Your task to perform on an android device: Show the shopping cart on walmart. Add "logitech g pro" to the cart on walmart Image 0: 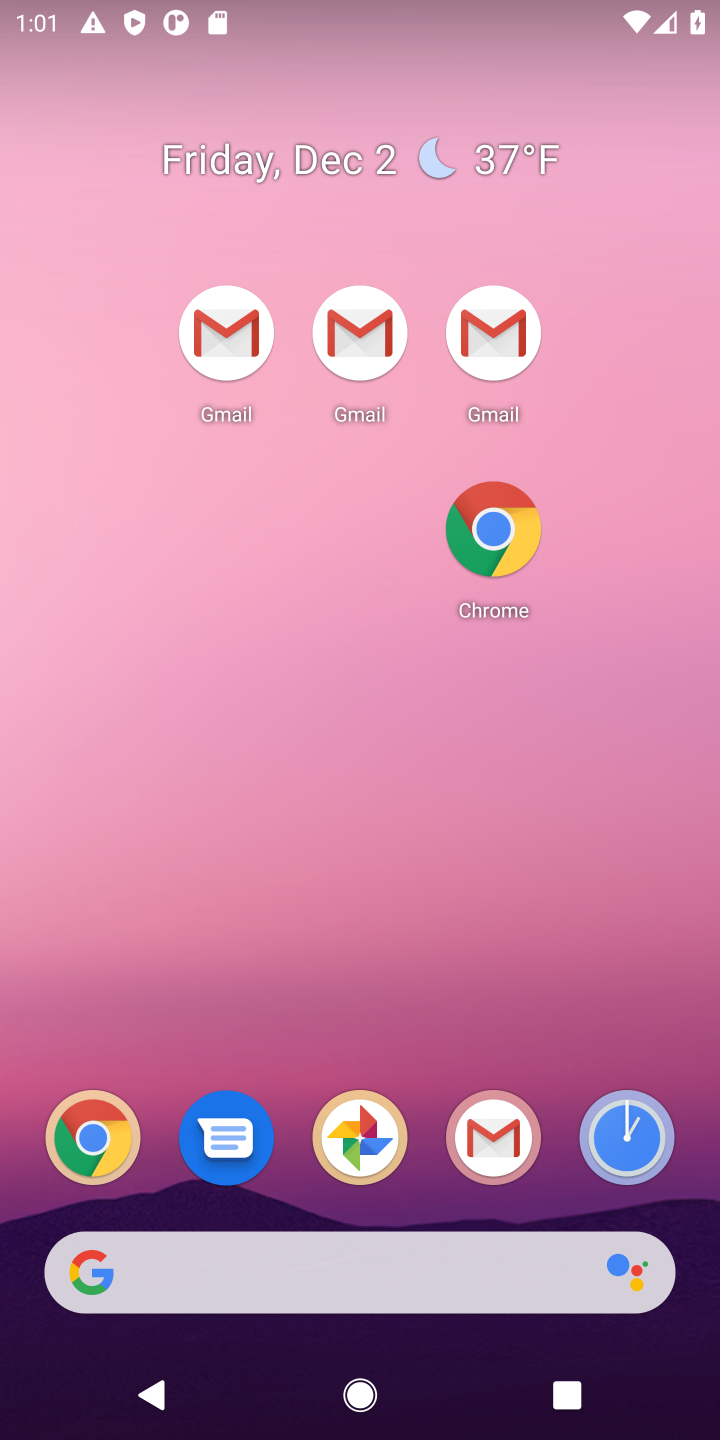
Step 0: drag from (437, 1210) to (418, 567)
Your task to perform on an android device: Show the shopping cart on walmart. Add "logitech g pro" to the cart on walmart Image 1: 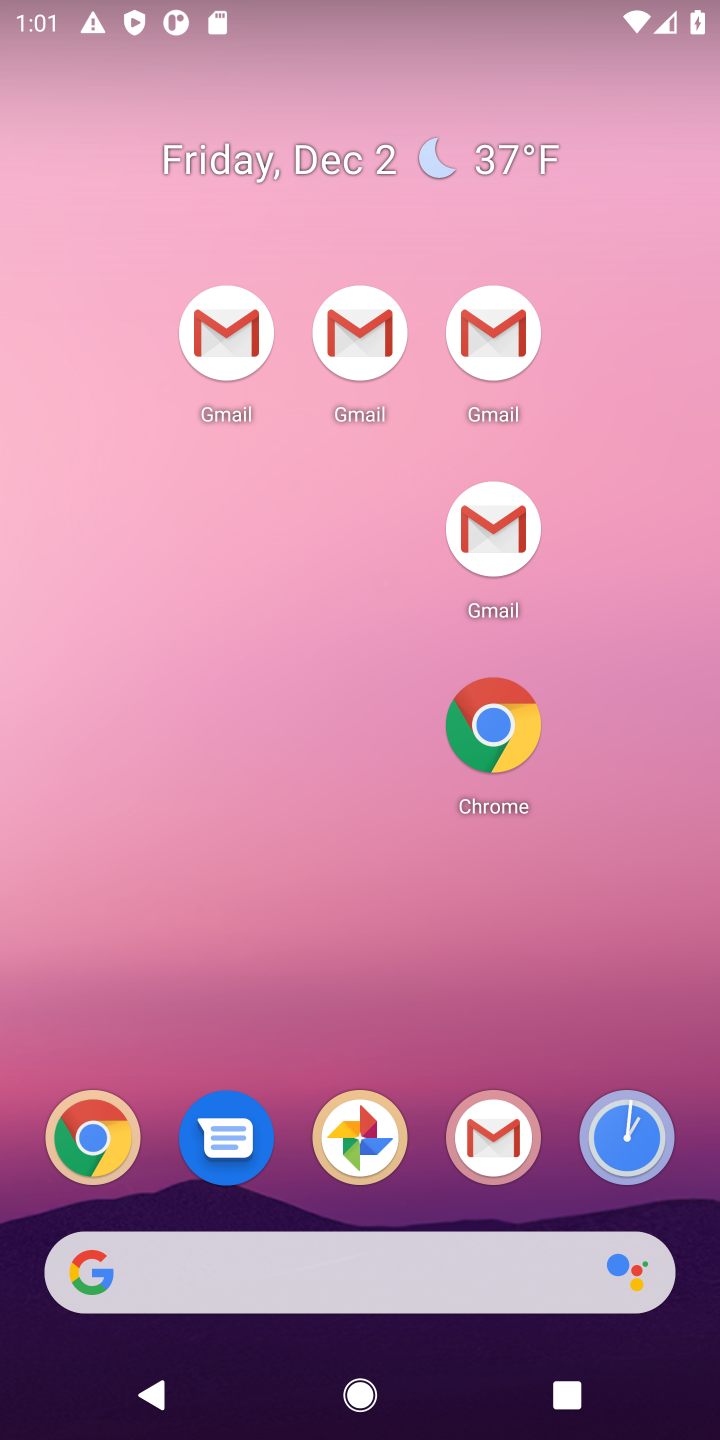
Step 1: drag from (412, 1052) to (358, 348)
Your task to perform on an android device: Show the shopping cart on walmart. Add "logitech g pro" to the cart on walmart Image 2: 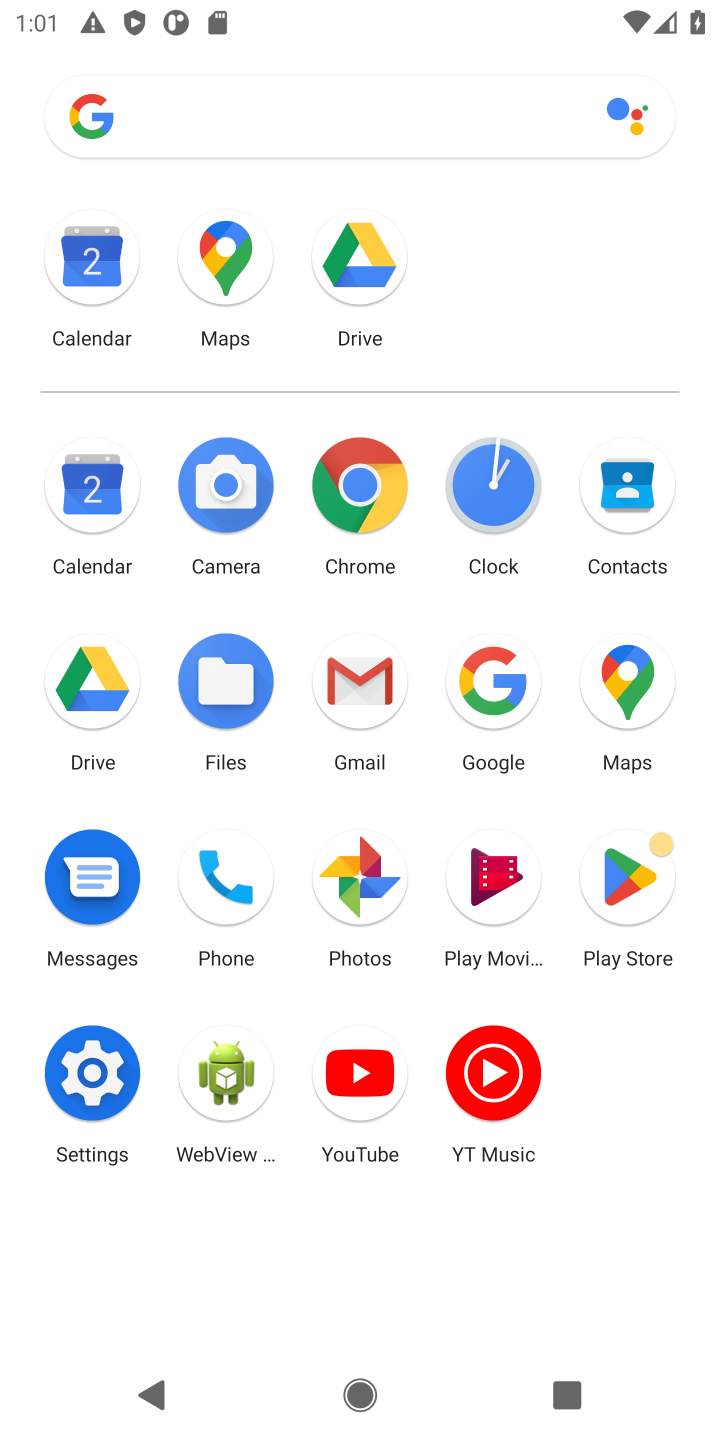
Step 2: click (480, 703)
Your task to perform on an android device: Show the shopping cart on walmart. Add "logitech g pro" to the cart on walmart Image 3: 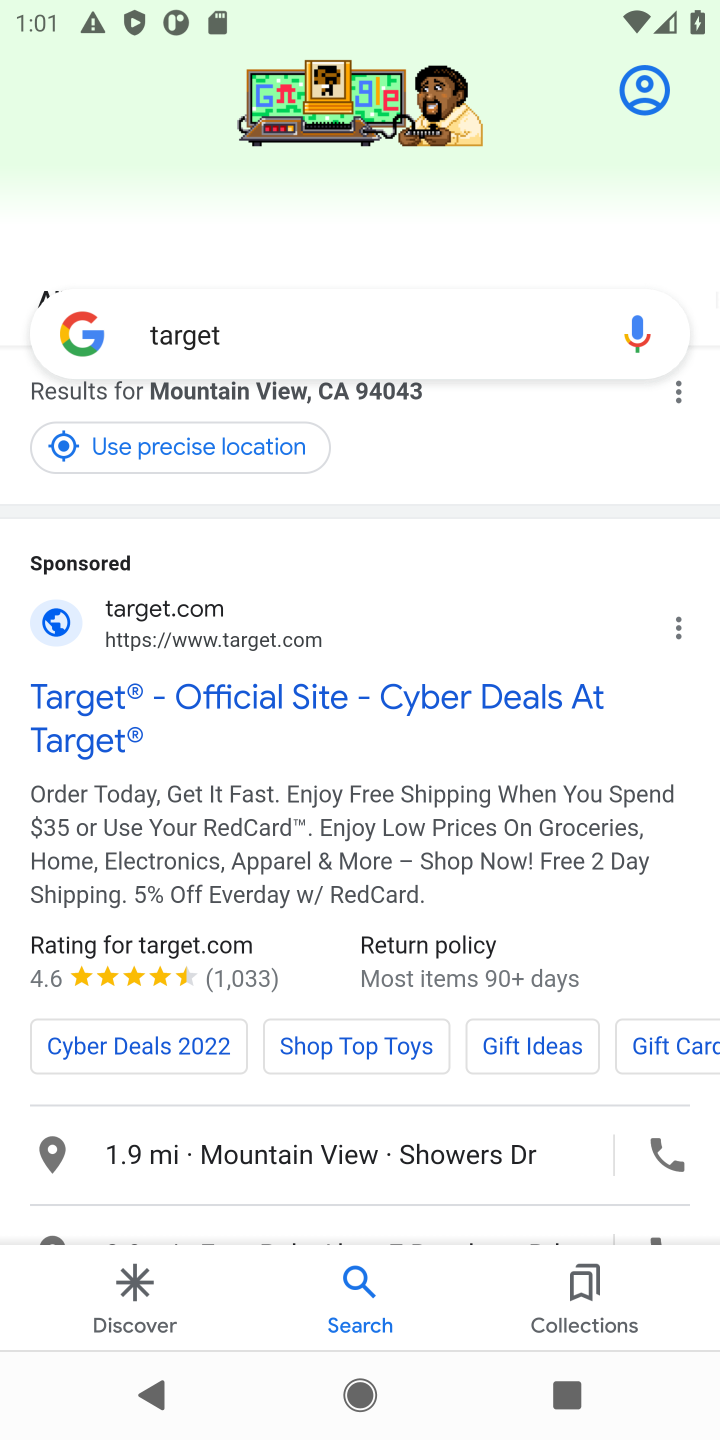
Step 3: click (535, 321)
Your task to perform on an android device: Show the shopping cart on walmart. Add "logitech g pro" to the cart on walmart Image 4: 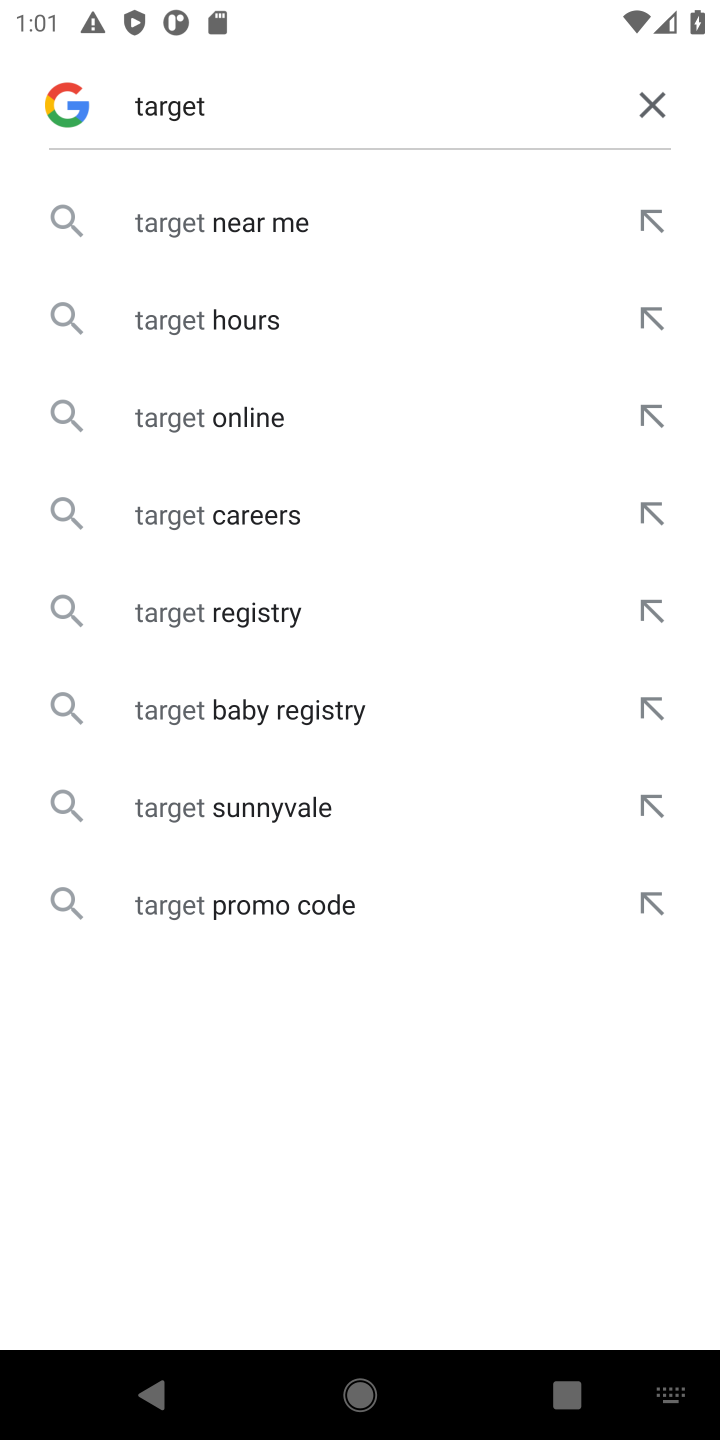
Step 4: click (638, 122)
Your task to perform on an android device: Show the shopping cart on walmart. Add "logitech g pro" to the cart on walmart Image 5: 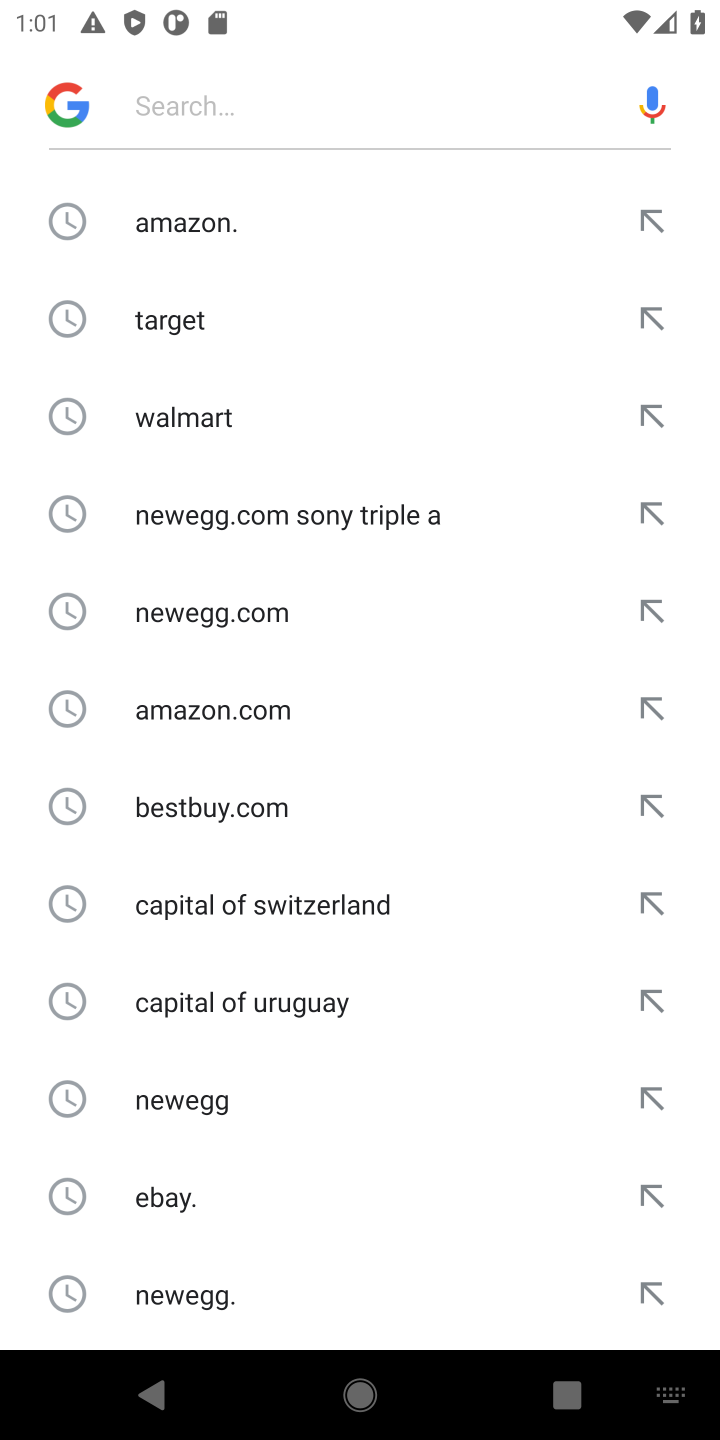
Step 5: type "logitech g pro"
Your task to perform on an android device: Show the shopping cart on walmart. Add "logitech g pro" to the cart on walmart Image 6: 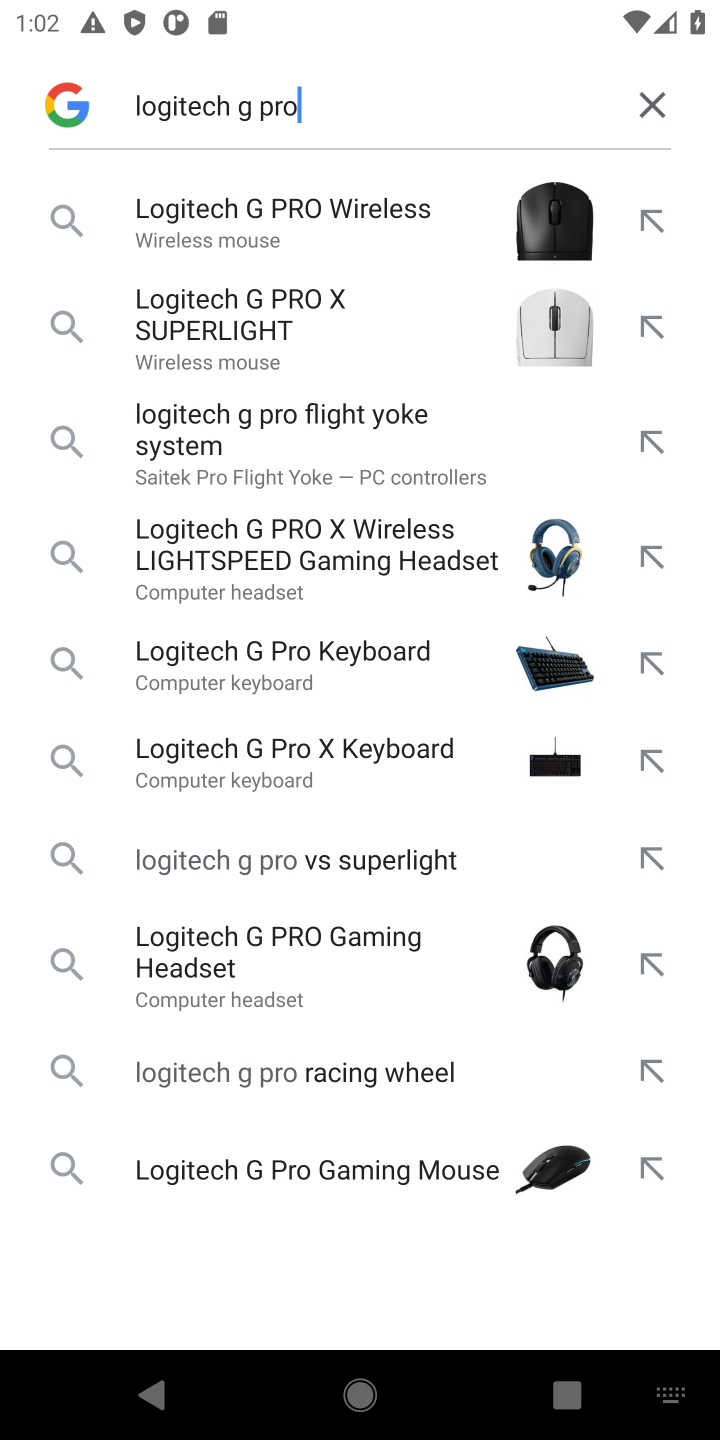
Step 6: click (660, 116)
Your task to perform on an android device: Show the shopping cart on walmart. Add "logitech g pro" to the cart on walmart Image 7: 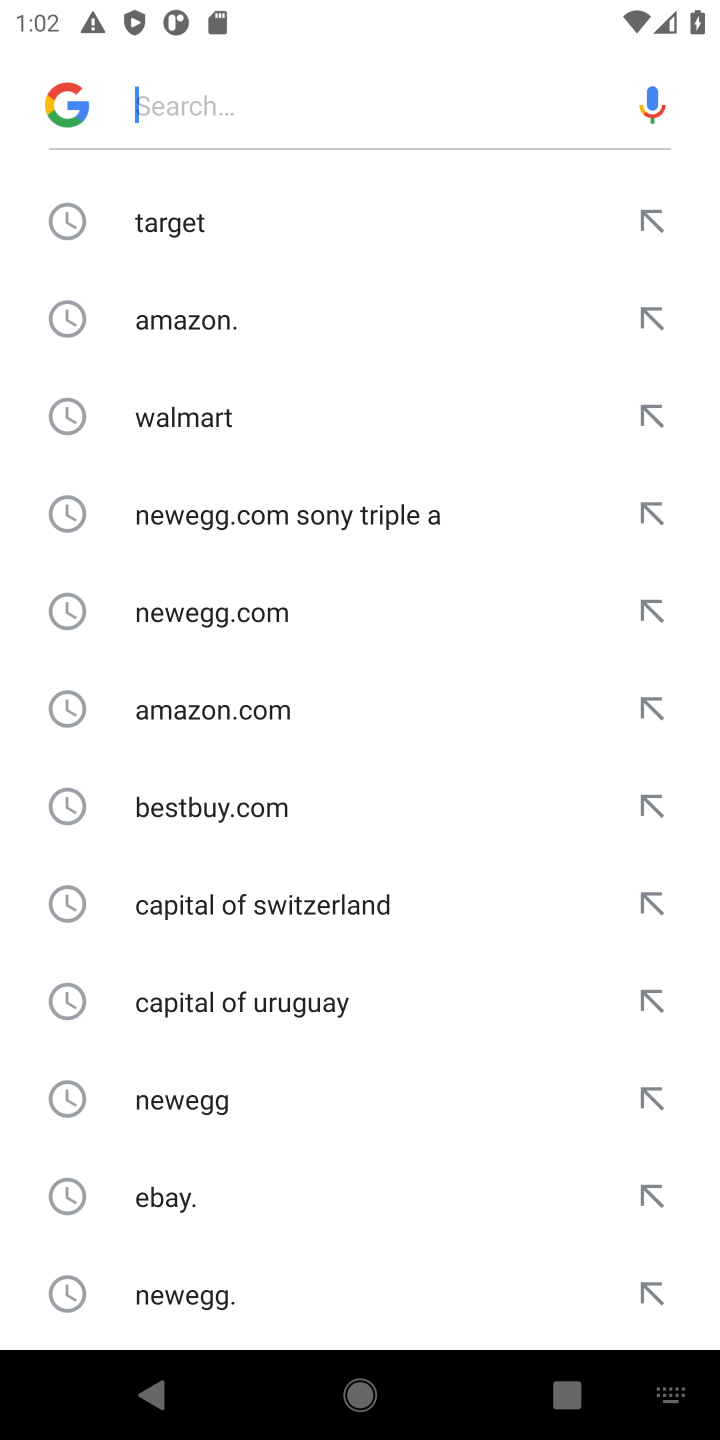
Step 7: type "walmart"
Your task to perform on an android device: Show the shopping cart on walmart. Add "logitech g pro" to the cart on walmart Image 8: 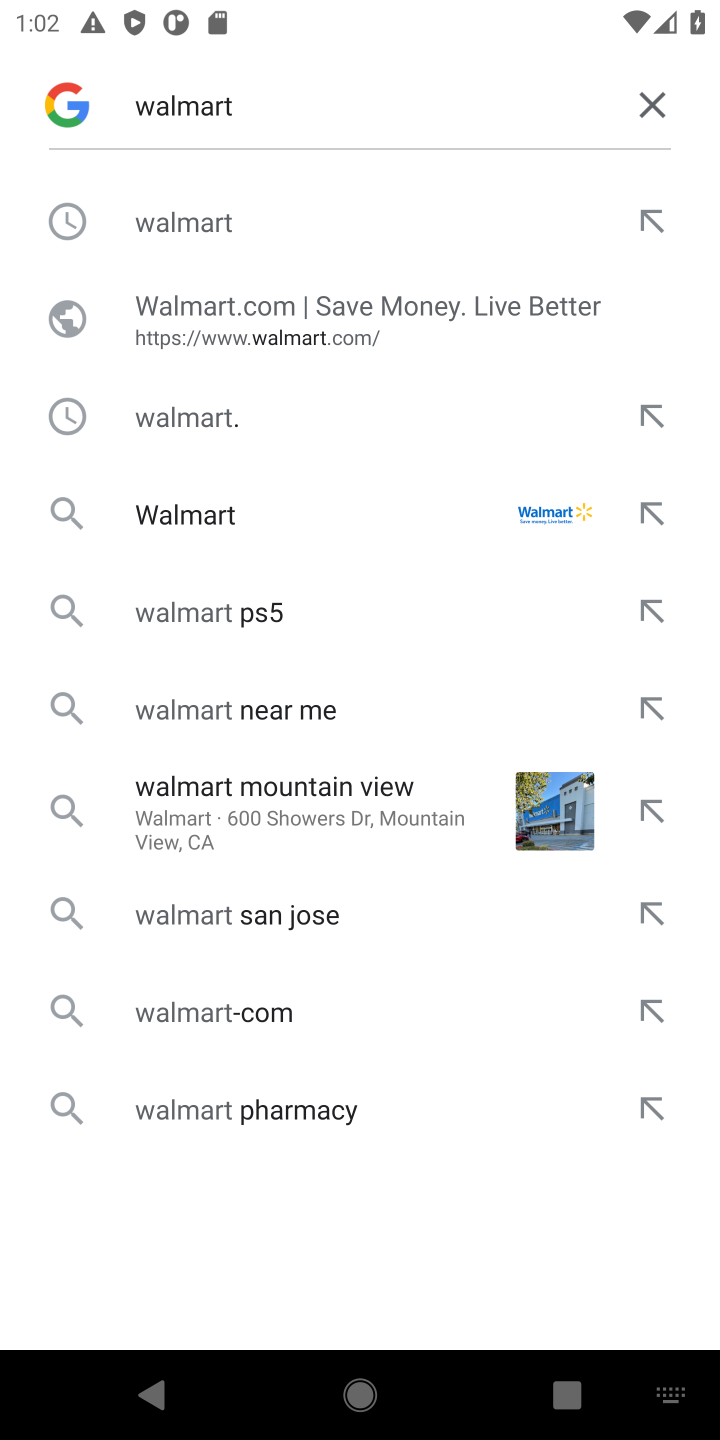
Step 8: click (338, 248)
Your task to perform on an android device: Show the shopping cart on walmart. Add "logitech g pro" to the cart on walmart Image 9: 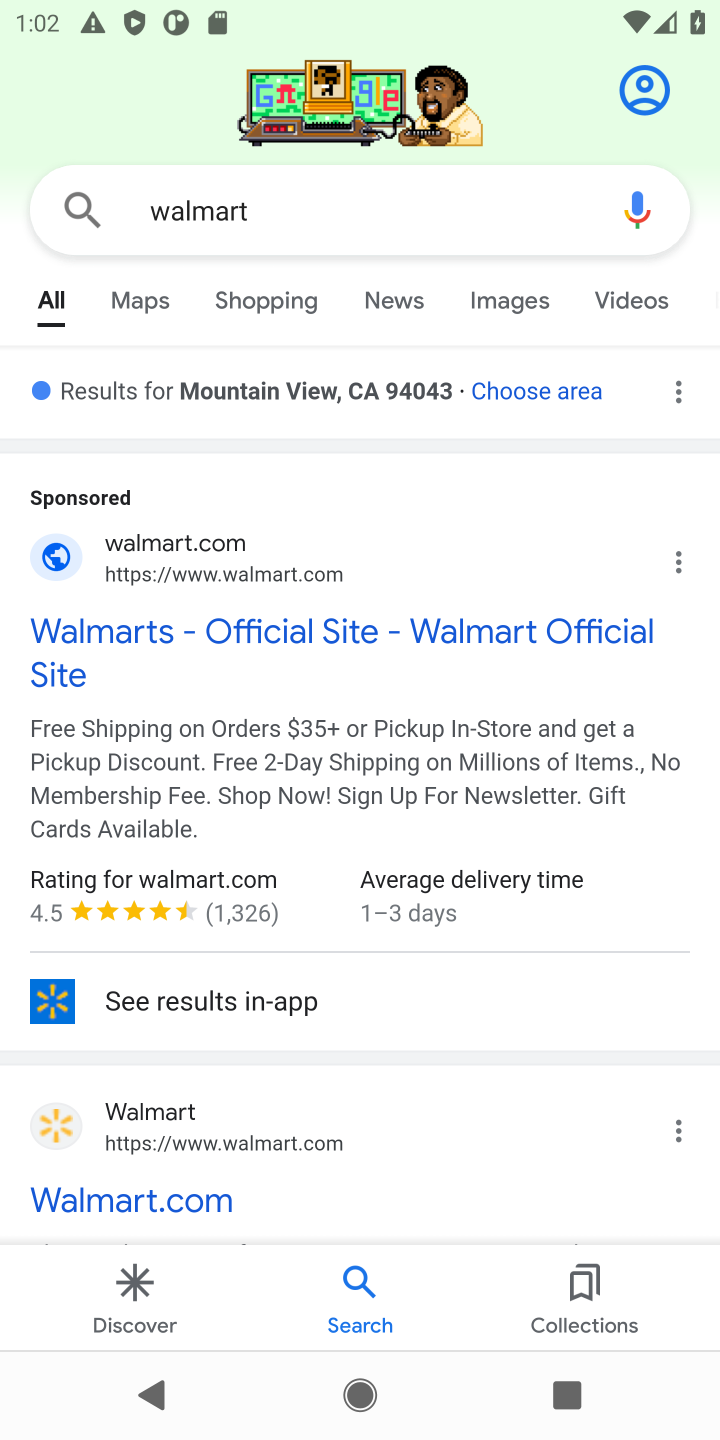
Step 9: click (191, 657)
Your task to perform on an android device: Show the shopping cart on walmart. Add "logitech g pro" to the cart on walmart Image 10: 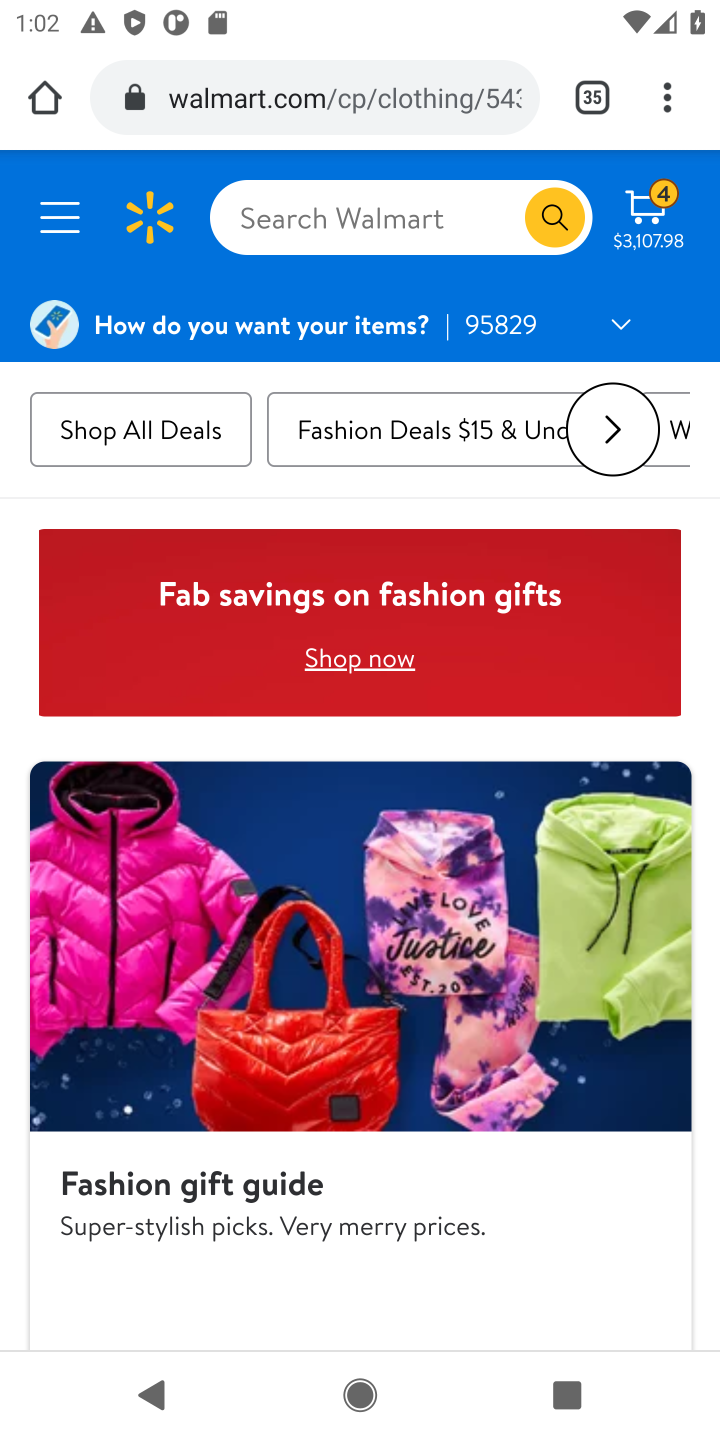
Step 10: click (638, 241)
Your task to perform on an android device: Show the shopping cart on walmart. Add "logitech g pro" to the cart on walmart Image 11: 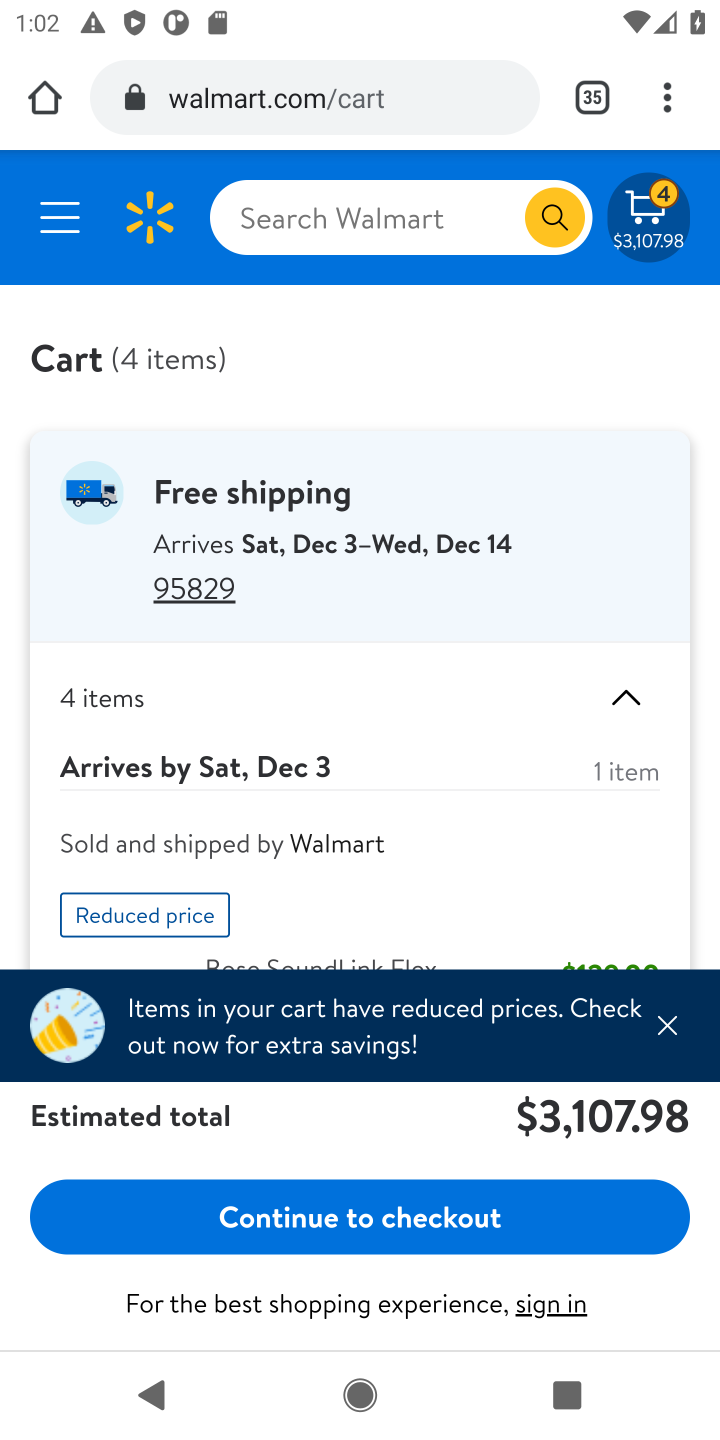
Step 11: drag from (400, 813) to (387, 430)
Your task to perform on an android device: Show the shopping cart on walmart. Add "logitech g pro" to the cart on walmart Image 12: 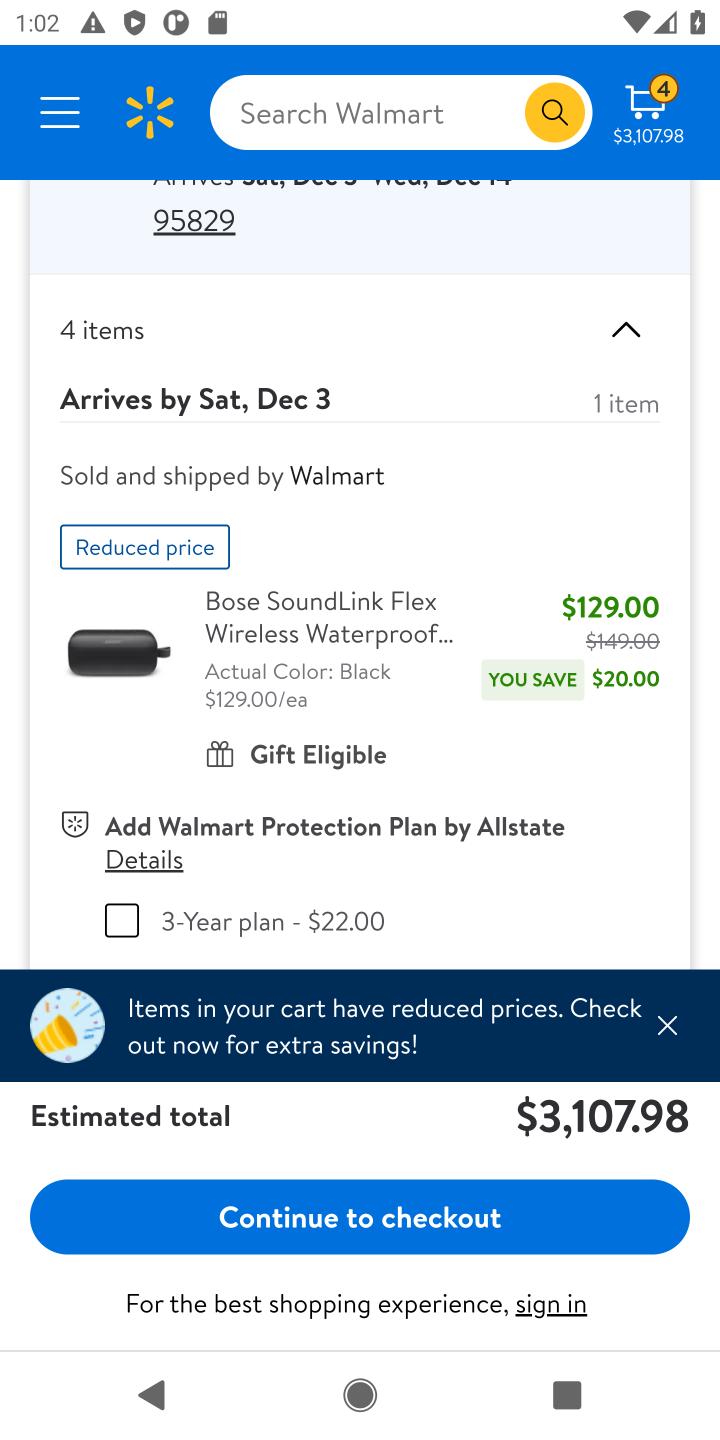
Step 12: drag from (355, 739) to (339, 417)
Your task to perform on an android device: Show the shopping cart on walmart. Add "logitech g pro" to the cart on walmart Image 13: 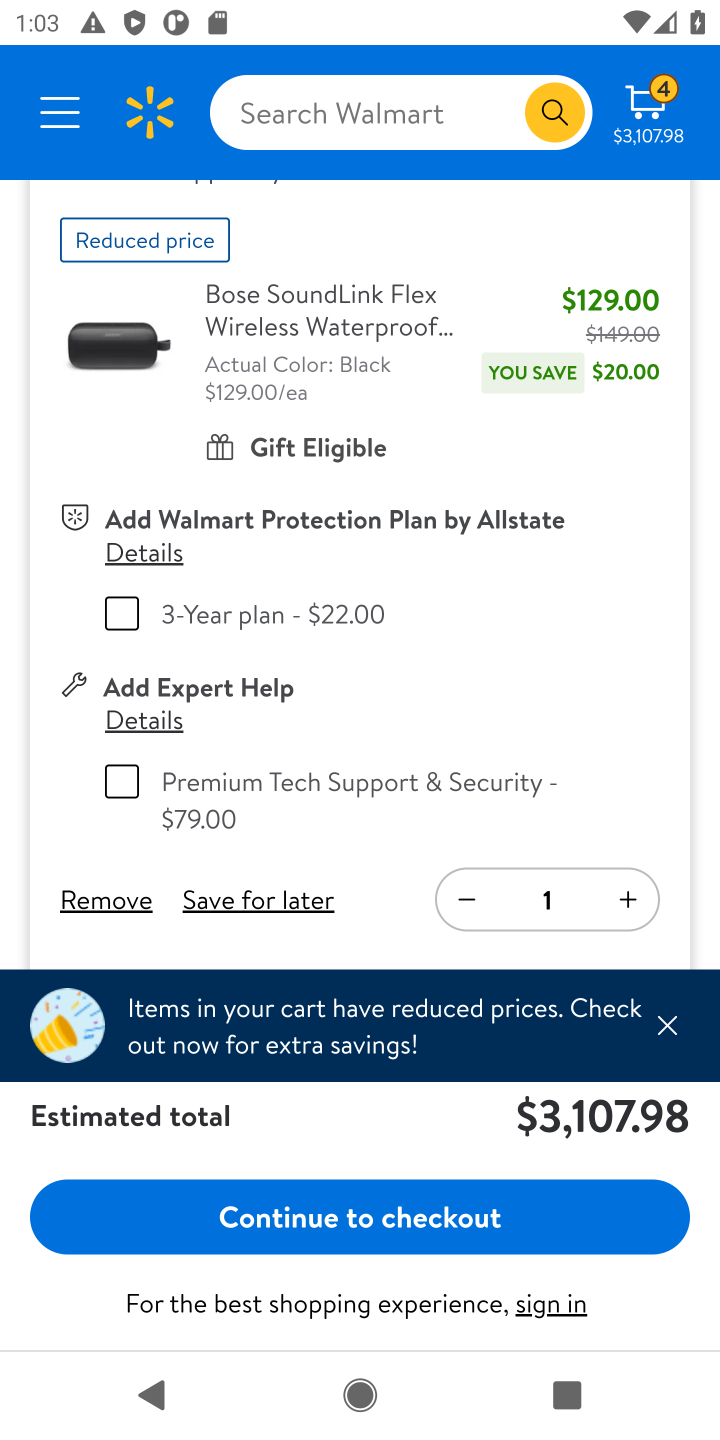
Step 13: click (364, 113)
Your task to perform on an android device: Show the shopping cart on walmart. Add "logitech g pro" to the cart on walmart Image 14: 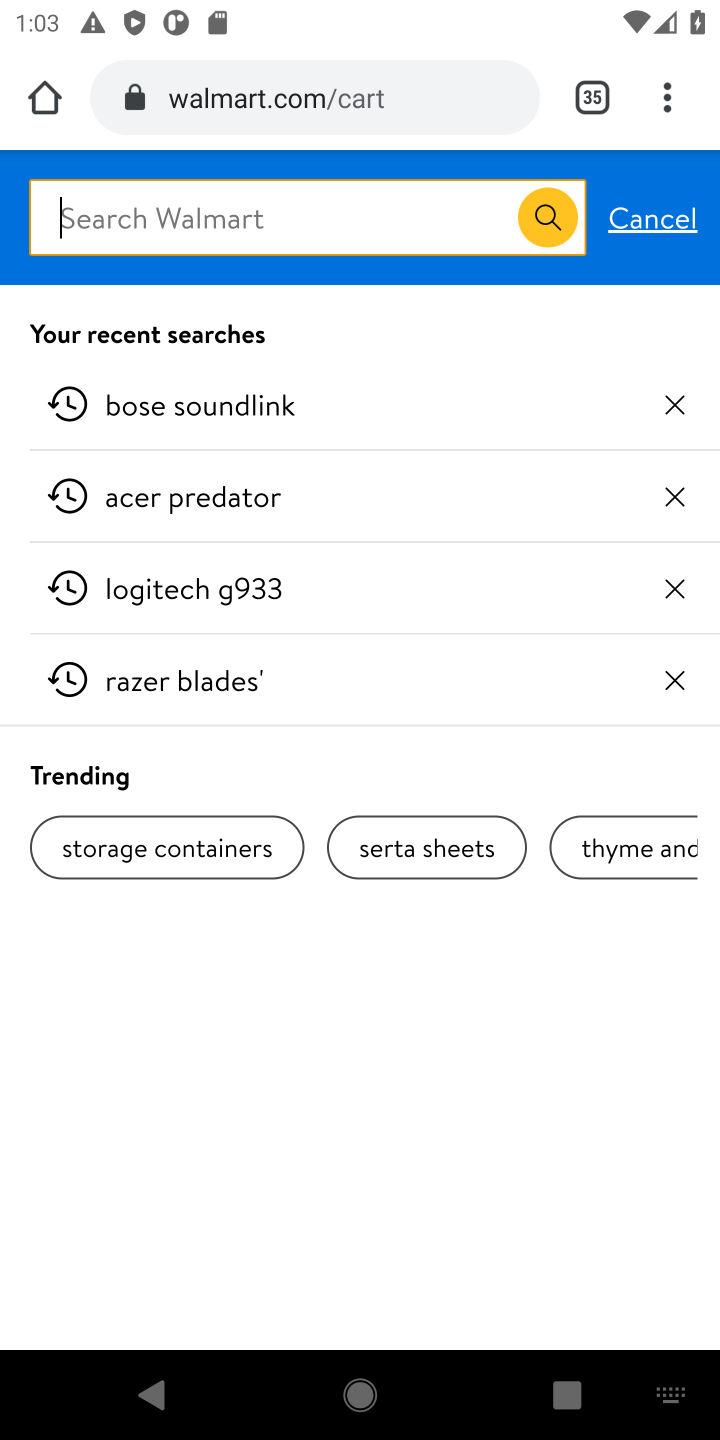
Step 14: type "logitech g pro"
Your task to perform on an android device: Show the shopping cart on walmart. Add "logitech g pro" to the cart on walmart Image 15: 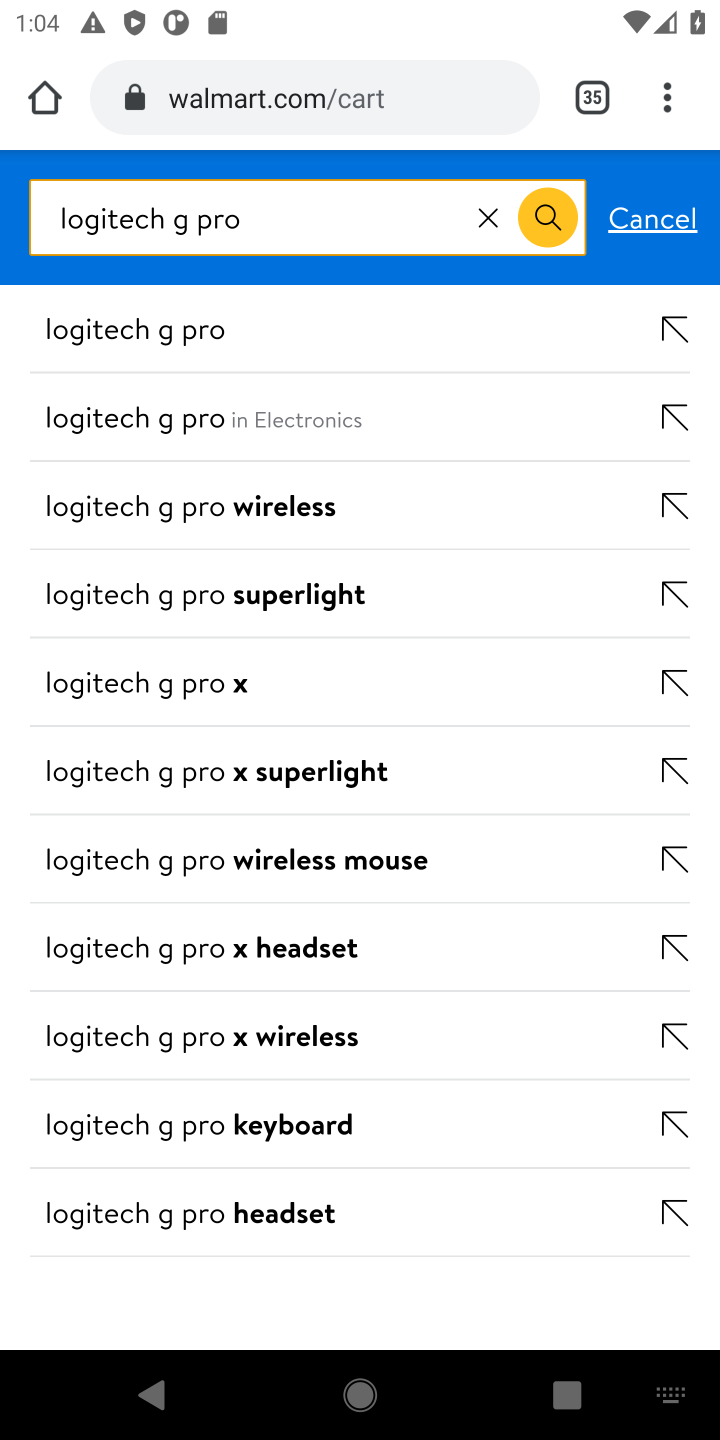
Step 15: click (543, 220)
Your task to perform on an android device: Show the shopping cart on walmart. Add "logitech g pro" to the cart on walmart Image 16: 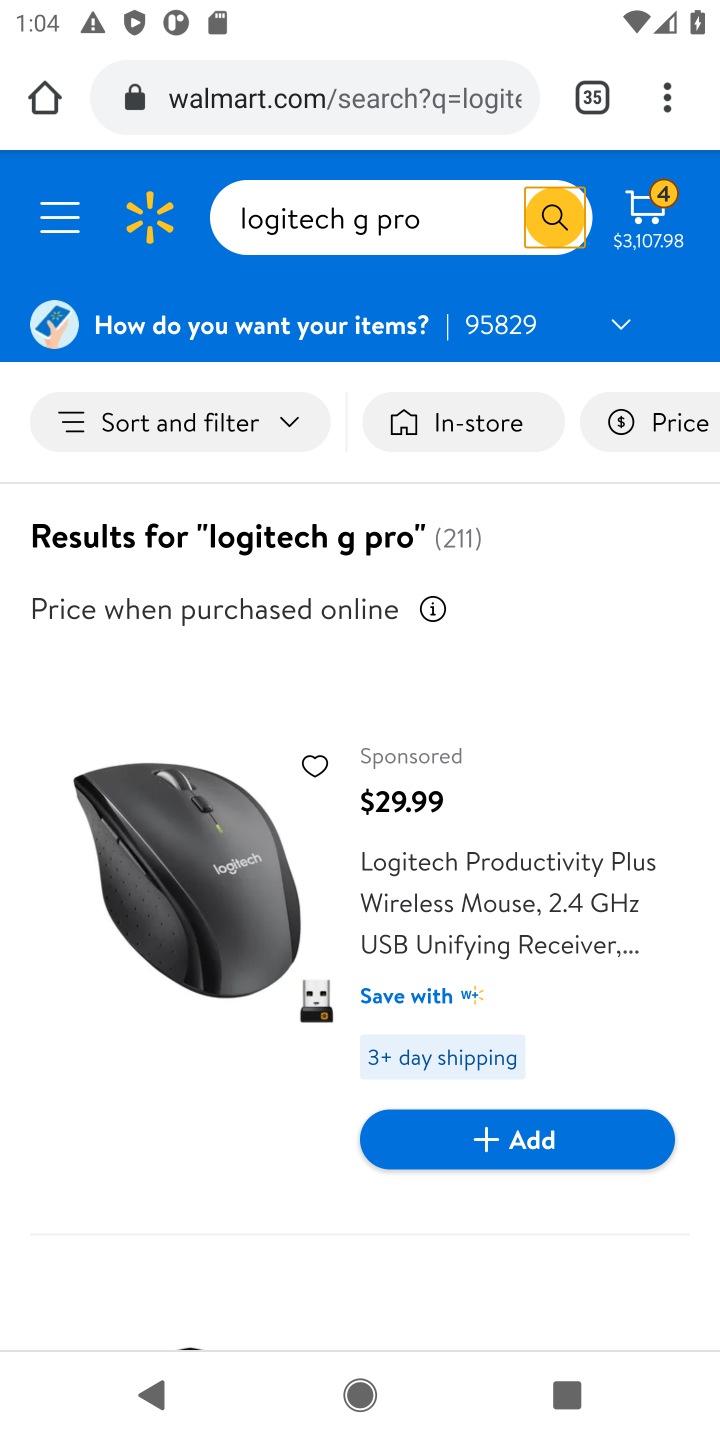
Step 16: click (544, 1146)
Your task to perform on an android device: Show the shopping cart on walmart. Add "logitech g pro" to the cart on walmart Image 17: 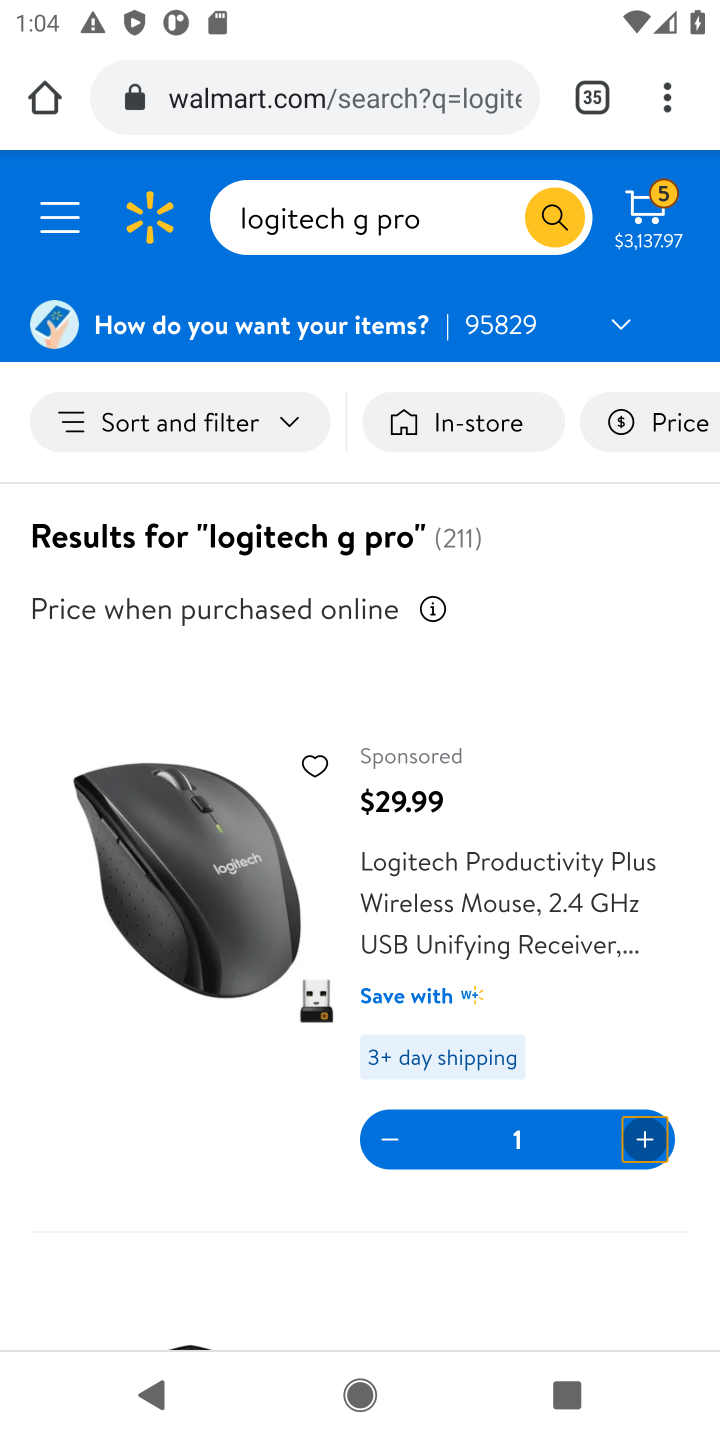
Step 17: task complete